Your task to perform on an android device: Turn on the flashlight Image 0: 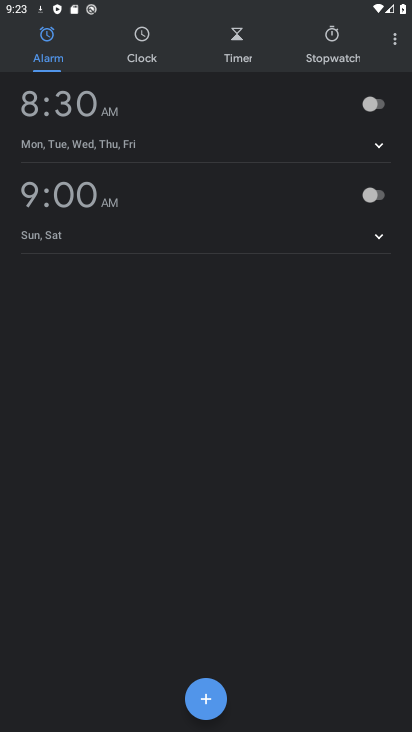
Step 0: press home button
Your task to perform on an android device: Turn on the flashlight Image 1: 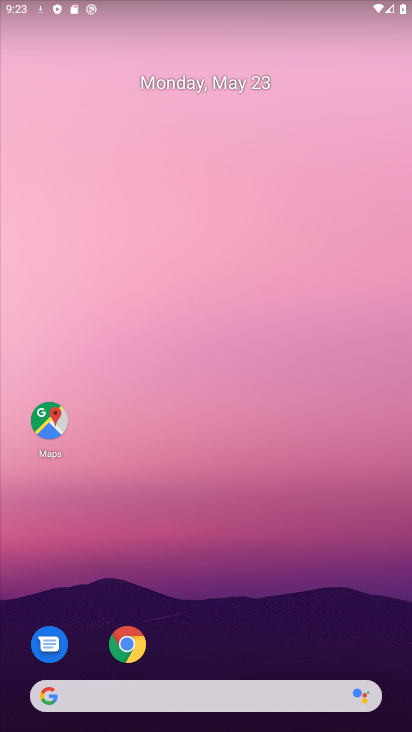
Step 1: drag from (251, 703) to (163, 214)
Your task to perform on an android device: Turn on the flashlight Image 2: 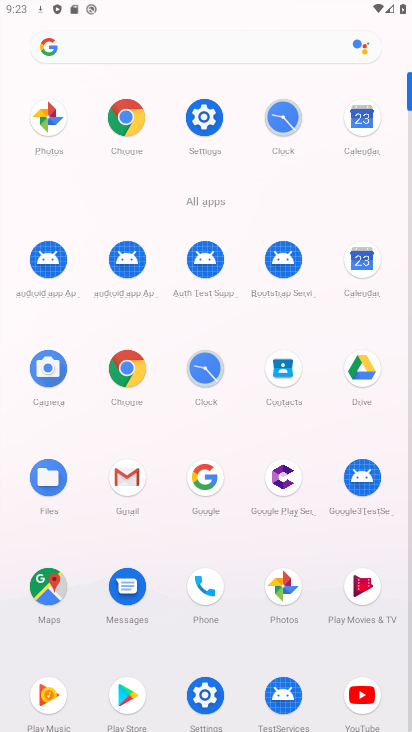
Step 2: click (194, 117)
Your task to perform on an android device: Turn on the flashlight Image 3: 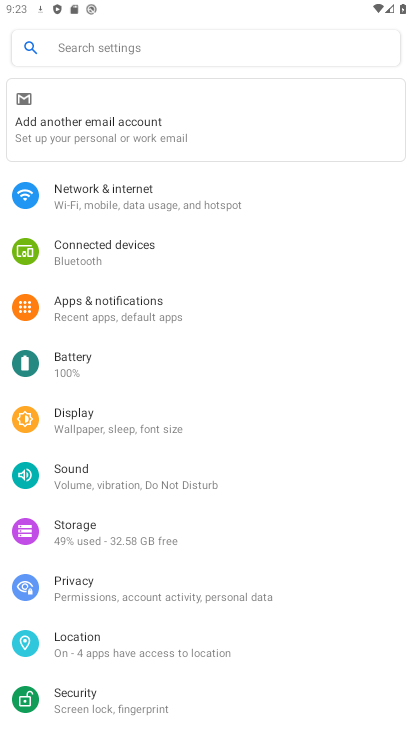
Step 3: click (129, 52)
Your task to perform on an android device: Turn on the flashlight Image 4: 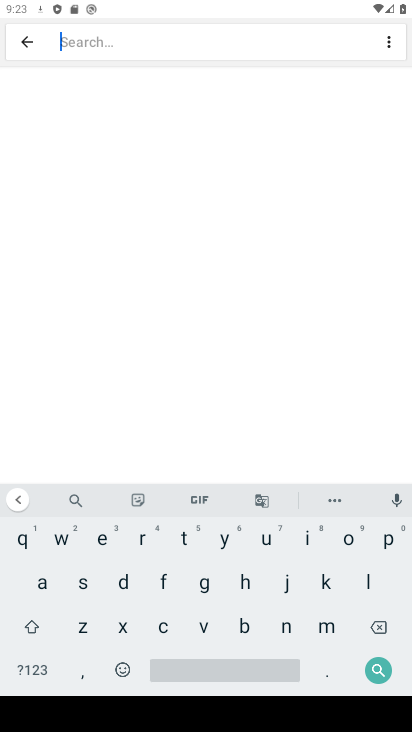
Step 4: click (166, 582)
Your task to perform on an android device: Turn on the flashlight Image 5: 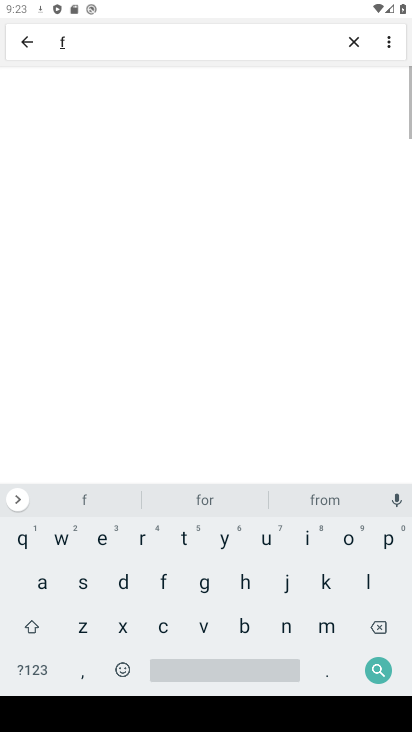
Step 5: click (370, 580)
Your task to perform on an android device: Turn on the flashlight Image 6: 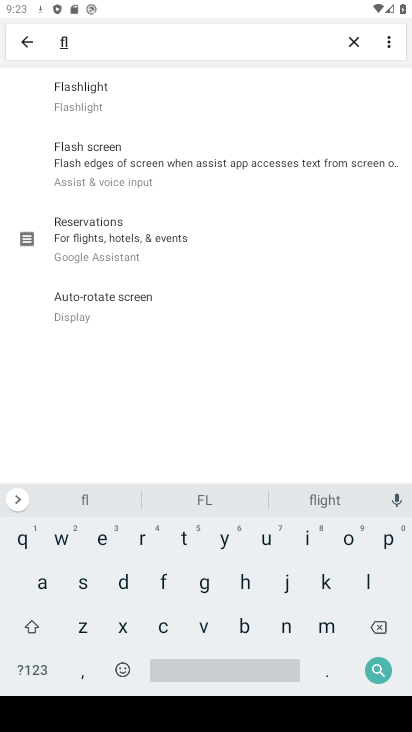
Step 6: click (134, 98)
Your task to perform on an android device: Turn on the flashlight Image 7: 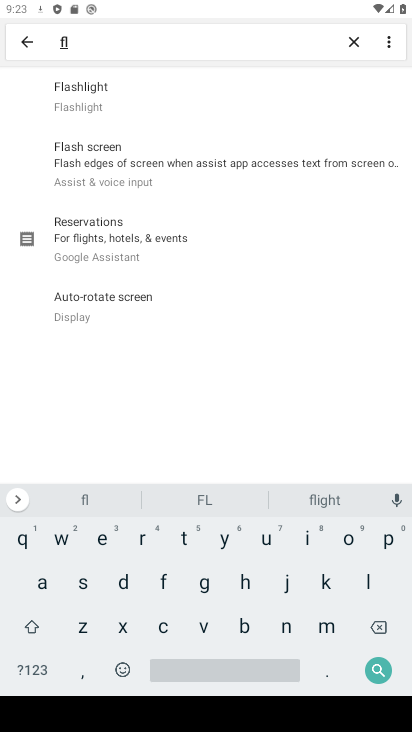
Step 7: task complete